Your task to perform on an android device: Go to settings Image 0: 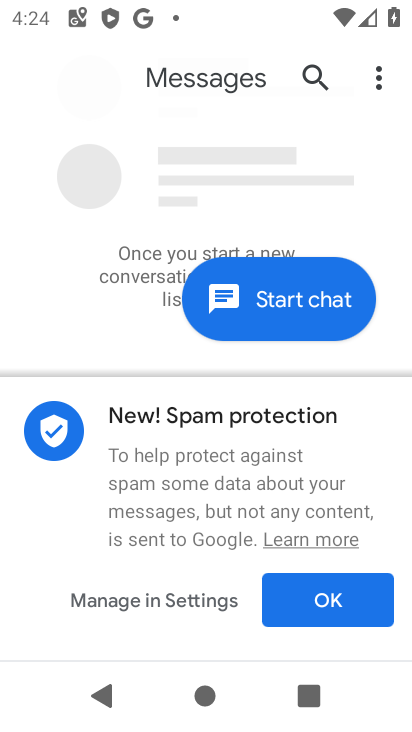
Step 0: press back button
Your task to perform on an android device: Go to settings Image 1: 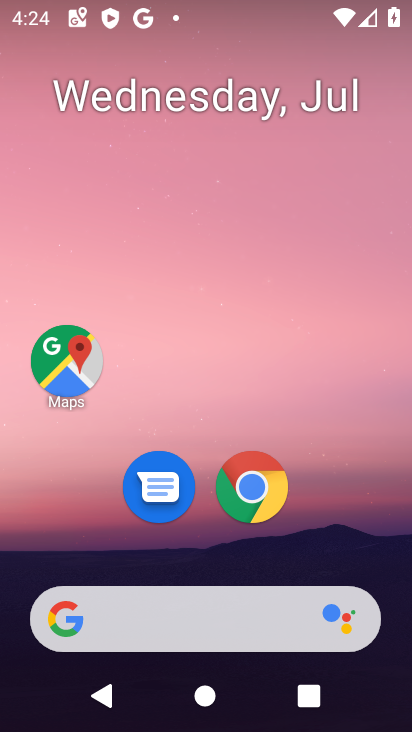
Step 1: drag from (216, 570) to (204, 0)
Your task to perform on an android device: Go to settings Image 2: 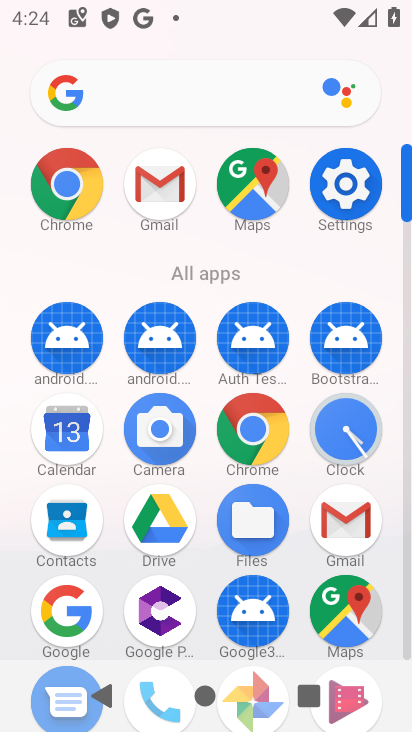
Step 2: click (358, 188)
Your task to perform on an android device: Go to settings Image 3: 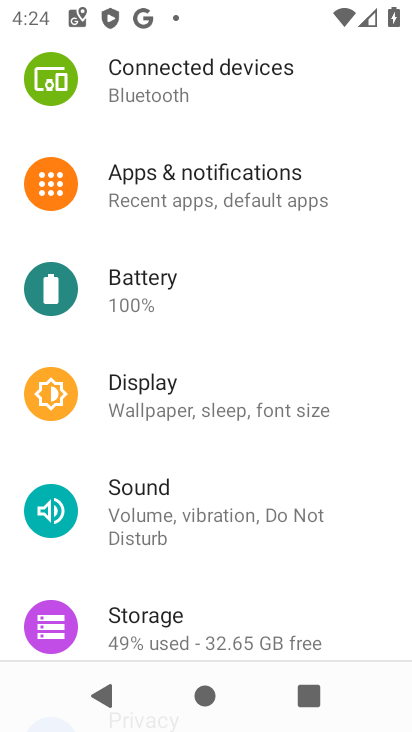
Step 3: task complete